Your task to perform on an android device: Open eBay Image 0: 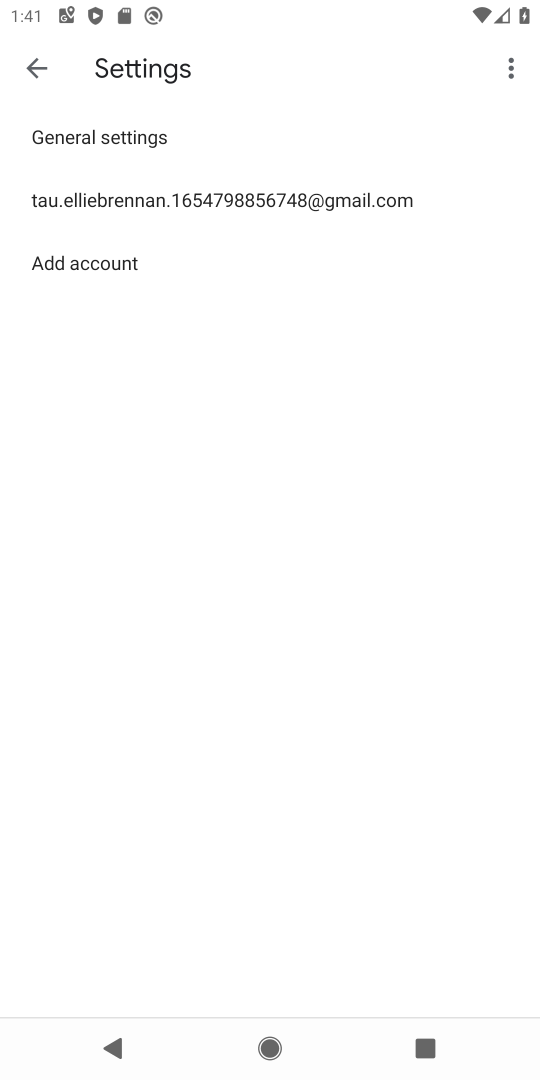
Step 0: press home button
Your task to perform on an android device: Open eBay Image 1: 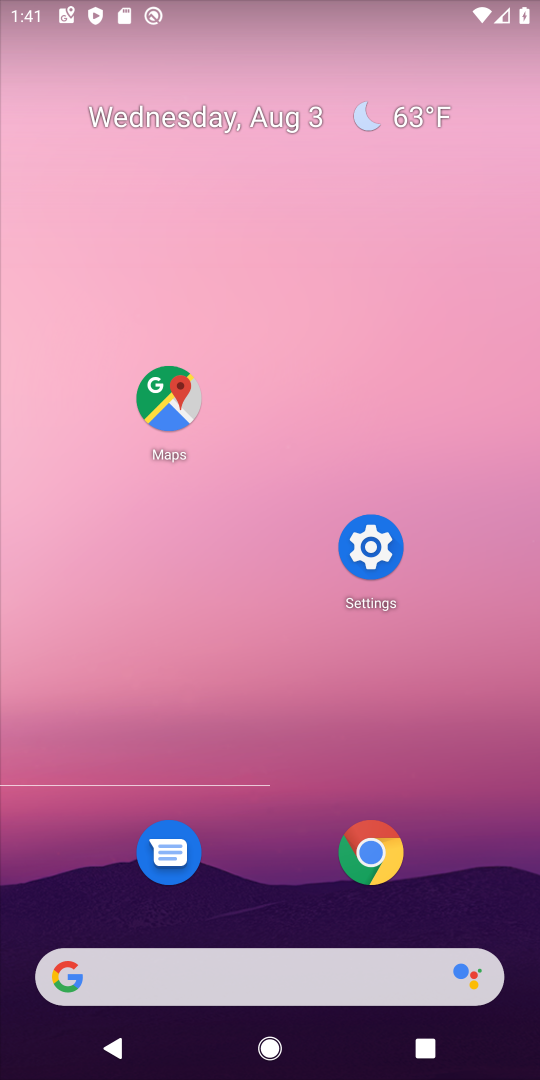
Step 1: click (367, 861)
Your task to perform on an android device: Open eBay Image 2: 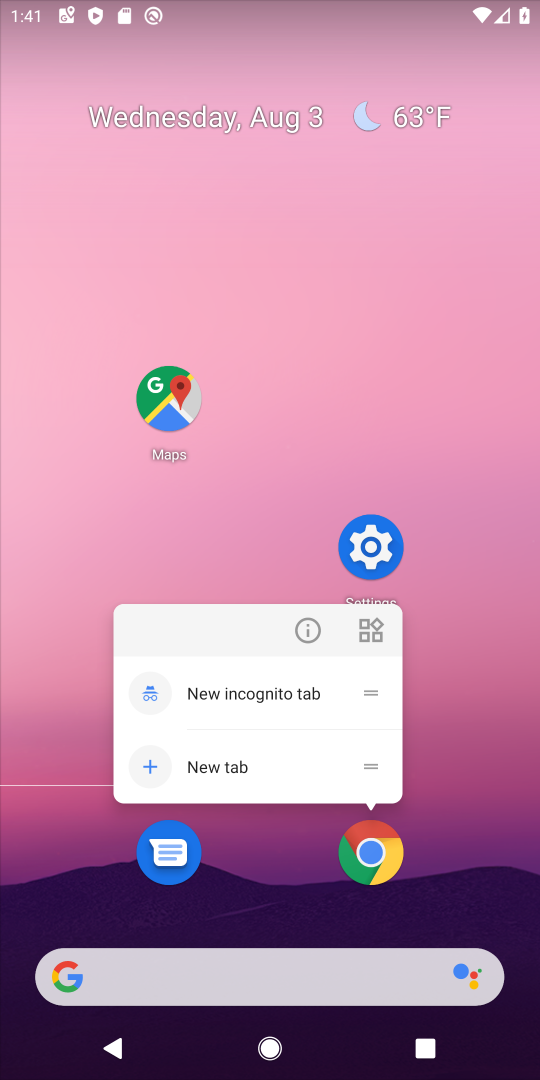
Step 2: click (367, 863)
Your task to perform on an android device: Open eBay Image 3: 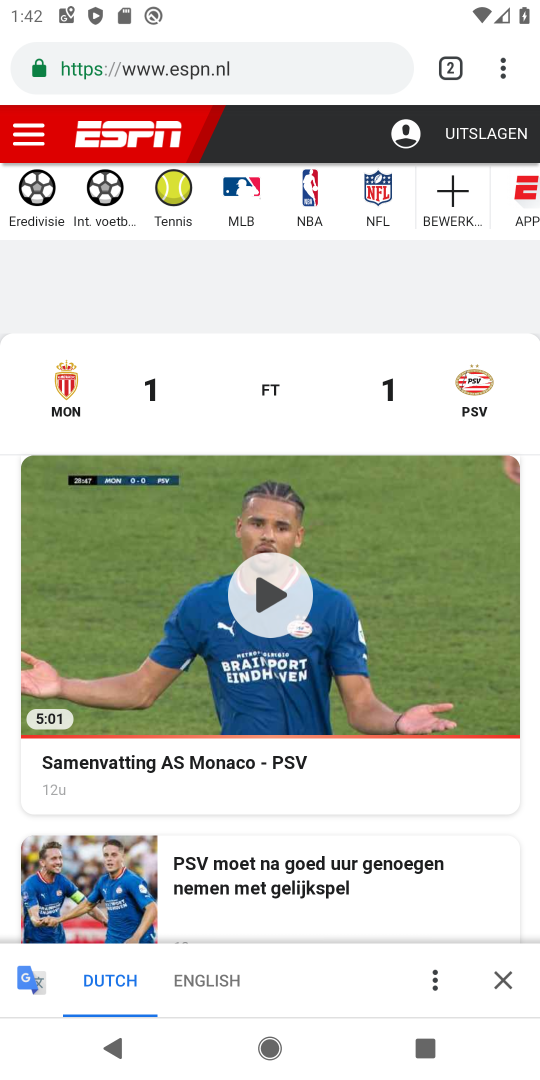
Step 3: drag from (503, 67) to (276, 210)
Your task to perform on an android device: Open eBay Image 4: 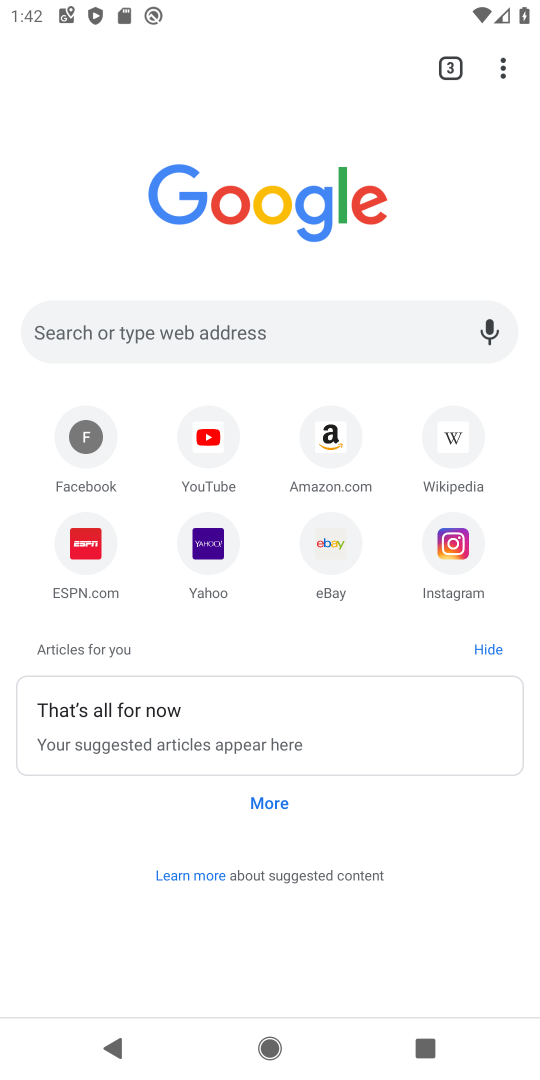
Step 4: click (337, 549)
Your task to perform on an android device: Open eBay Image 5: 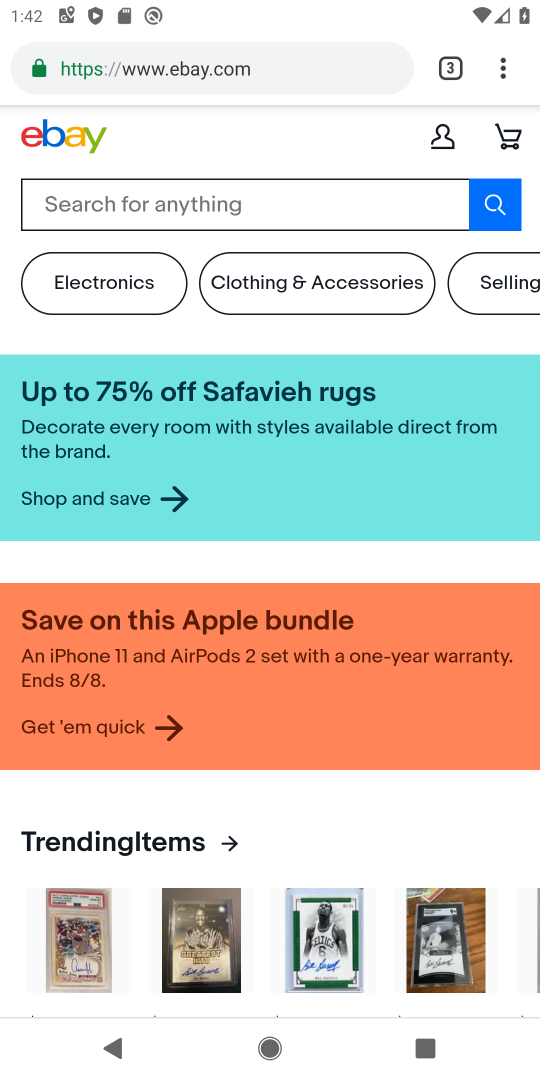
Step 5: task complete